Your task to perform on an android device: make emails show in primary in the gmail app Image 0: 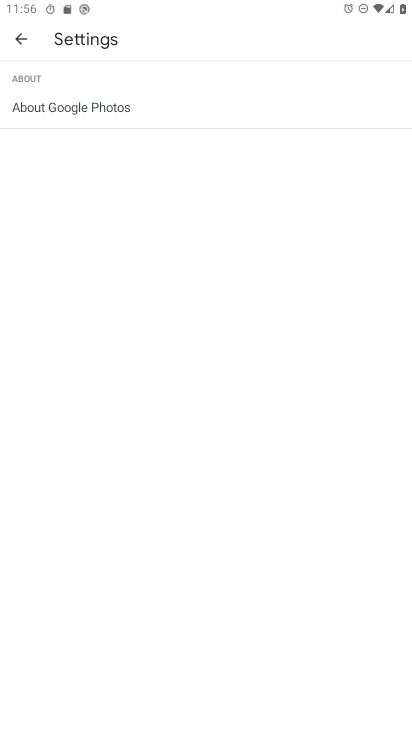
Step 0: press home button
Your task to perform on an android device: make emails show in primary in the gmail app Image 1: 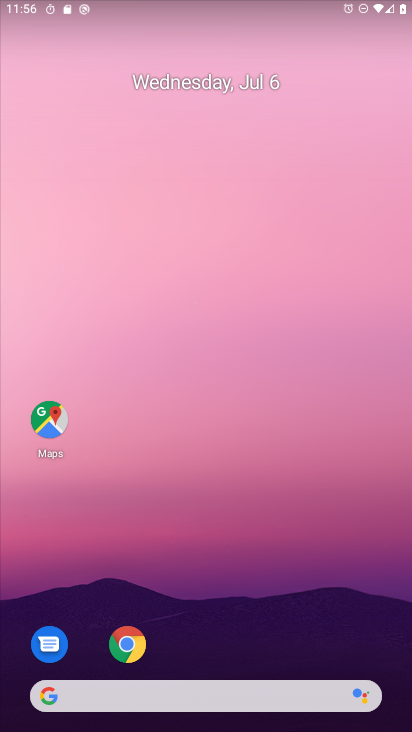
Step 1: drag from (158, 645) to (229, 177)
Your task to perform on an android device: make emails show in primary in the gmail app Image 2: 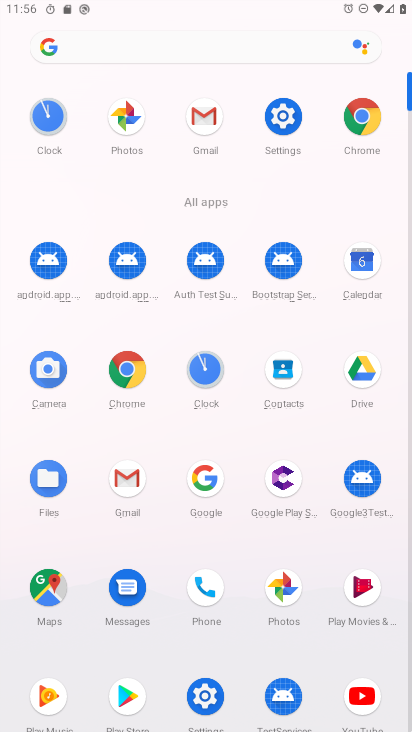
Step 2: click (209, 116)
Your task to perform on an android device: make emails show in primary in the gmail app Image 3: 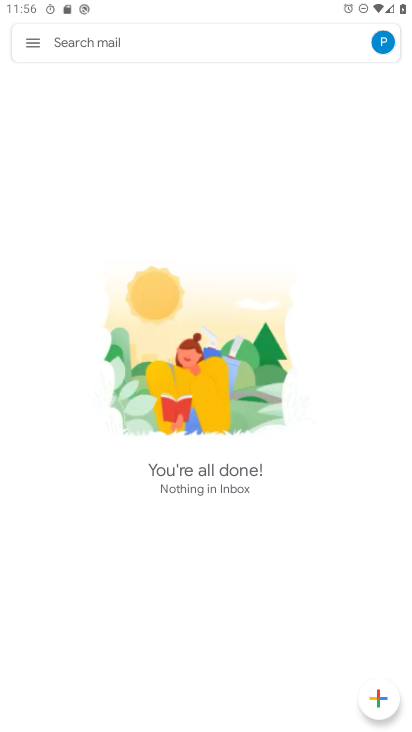
Step 3: click (33, 42)
Your task to perform on an android device: make emails show in primary in the gmail app Image 4: 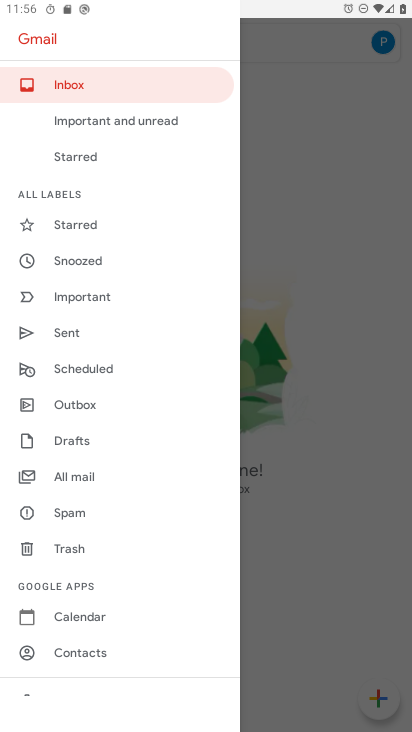
Step 4: drag from (81, 552) to (104, 139)
Your task to perform on an android device: make emails show in primary in the gmail app Image 5: 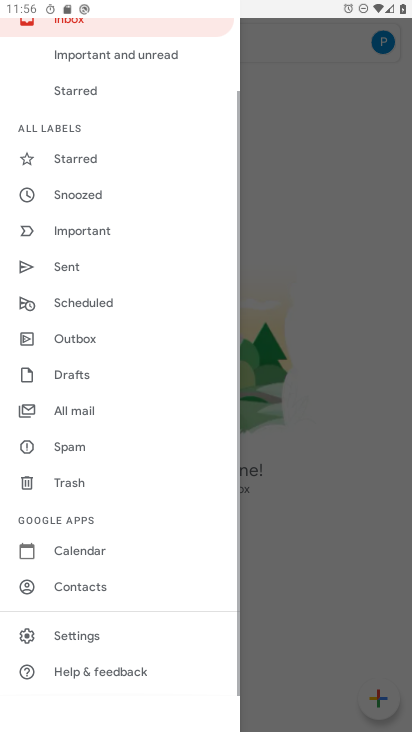
Step 5: click (96, 631)
Your task to perform on an android device: make emails show in primary in the gmail app Image 6: 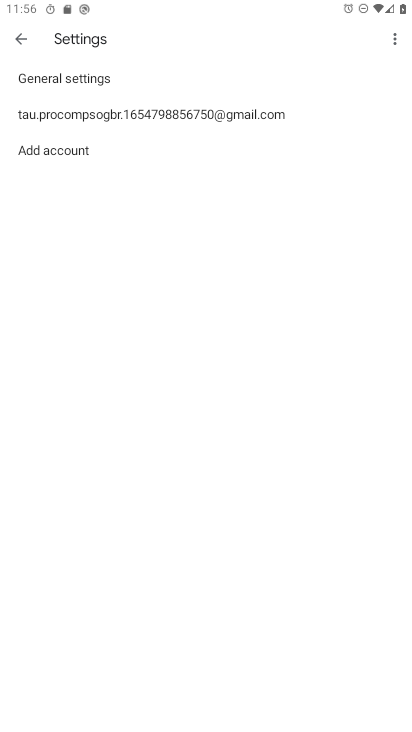
Step 6: click (151, 110)
Your task to perform on an android device: make emails show in primary in the gmail app Image 7: 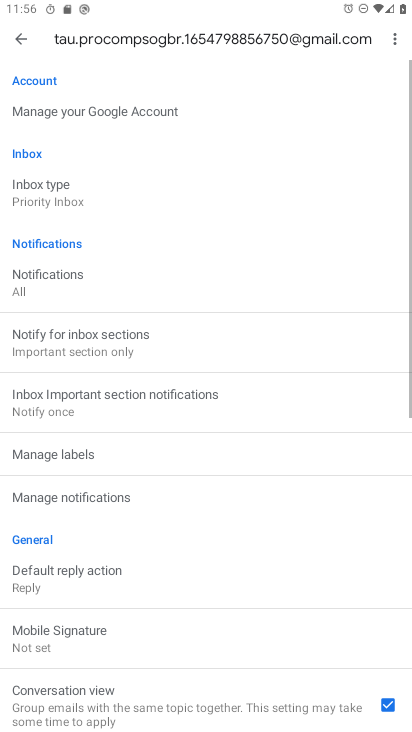
Step 7: click (75, 183)
Your task to perform on an android device: make emails show in primary in the gmail app Image 8: 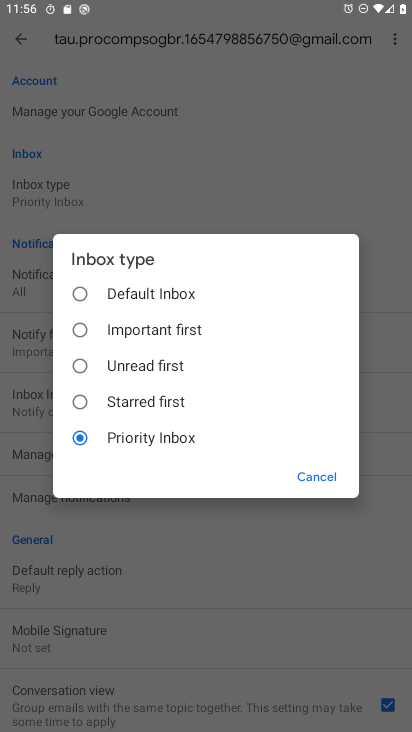
Step 8: drag from (243, 174) to (9, 264)
Your task to perform on an android device: make emails show in primary in the gmail app Image 9: 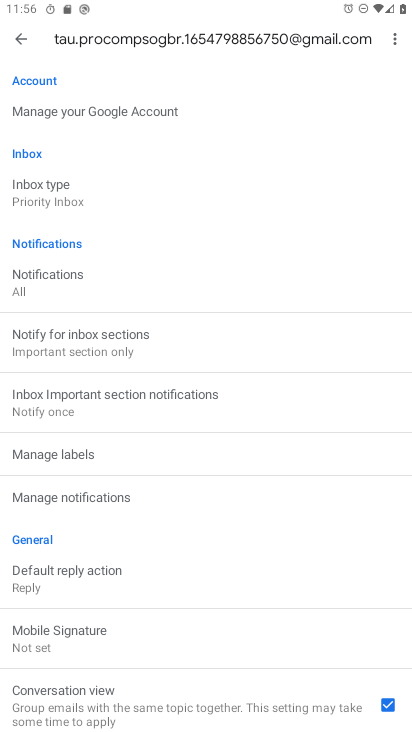
Step 9: click (78, 297)
Your task to perform on an android device: make emails show in primary in the gmail app Image 10: 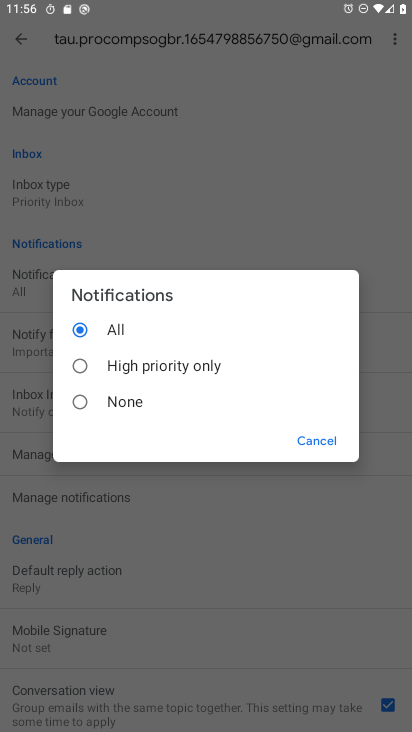
Step 10: click (69, 203)
Your task to perform on an android device: make emails show in primary in the gmail app Image 11: 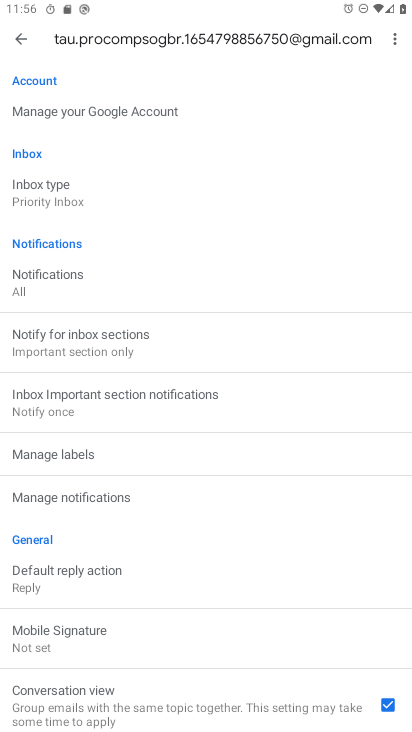
Step 11: click (69, 198)
Your task to perform on an android device: make emails show in primary in the gmail app Image 12: 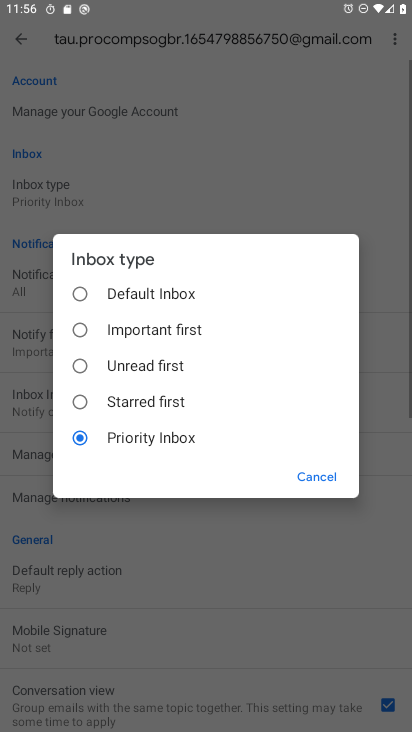
Step 12: click (79, 289)
Your task to perform on an android device: make emails show in primary in the gmail app Image 13: 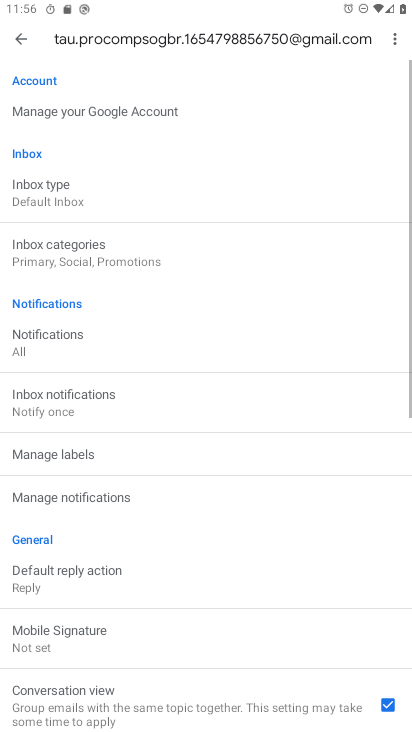
Step 13: click (60, 261)
Your task to perform on an android device: make emails show in primary in the gmail app Image 14: 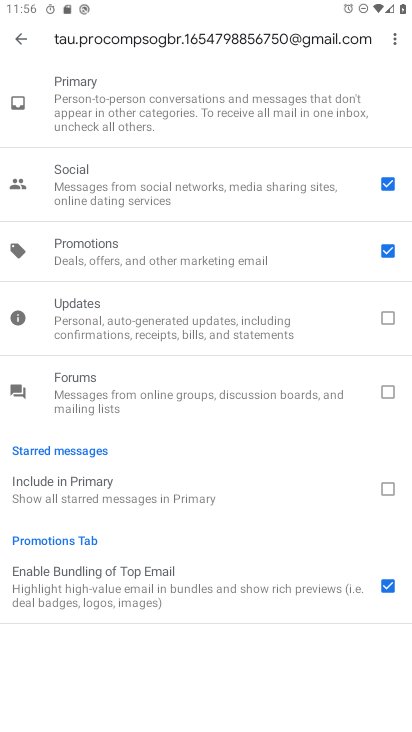
Step 14: click (390, 251)
Your task to perform on an android device: make emails show in primary in the gmail app Image 15: 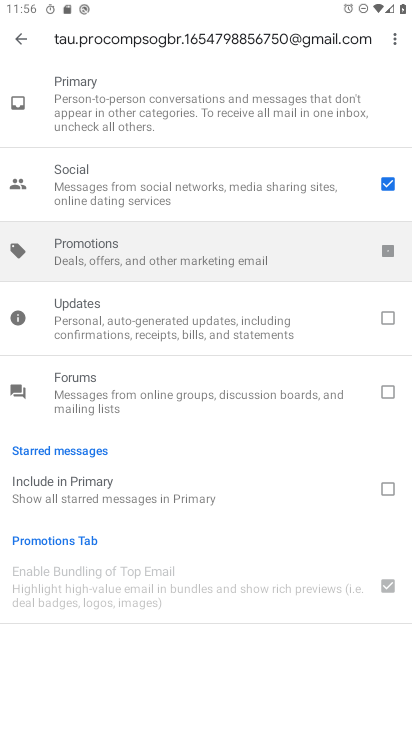
Step 15: click (384, 181)
Your task to perform on an android device: make emails show in primary in the gmail app Image 16: 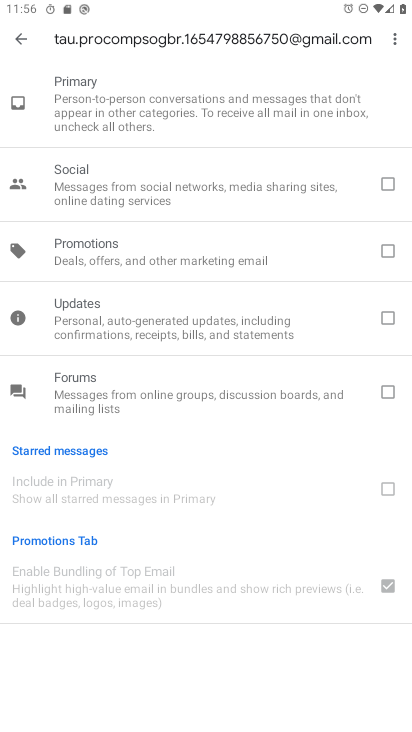
Step 16: task complete